Your task to perform on an android device: Add razer blackwidow to the cart on amazon, then select checkout. Image 0: 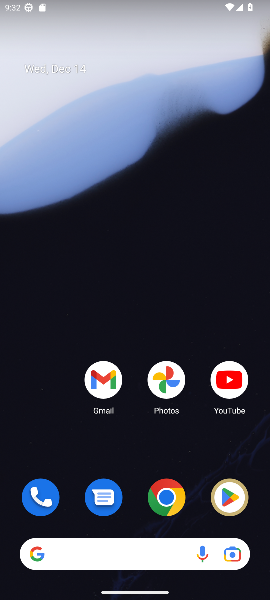
Step 0: click (169, 503)
Your task to perform on an android device: Add razer blackwidow to the cart on amazon, then select checkout. Image 1: 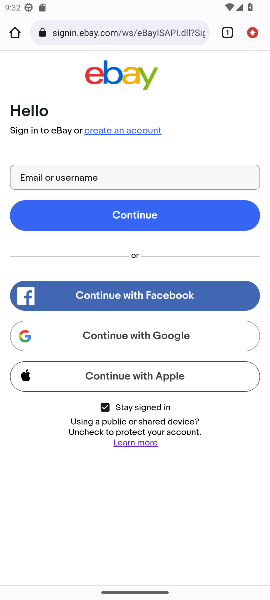
Step 1: click (68, 36)
Your task to perform on an android device: Add razer blackwidow to the cart on amazon, then select checkout. Image 2: 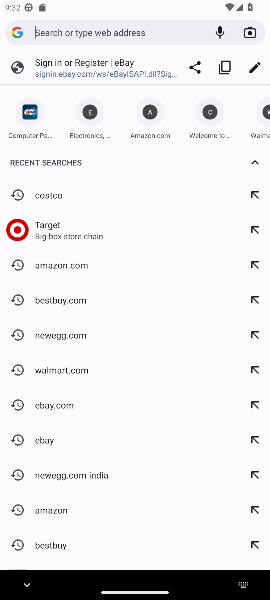
Step 2: type "amazon"
Your task to perform on an android device: Add razer blackwidow to the cart on amazon, then select checkout. Image 3: 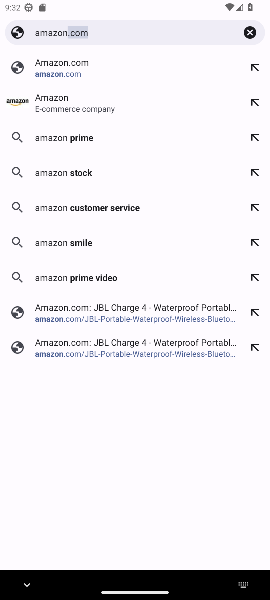
Step 3: click (97, 66)
Your task to perform on an android device: Add razer blackwidow to the cart on amazon, then select checkout. Image 4: 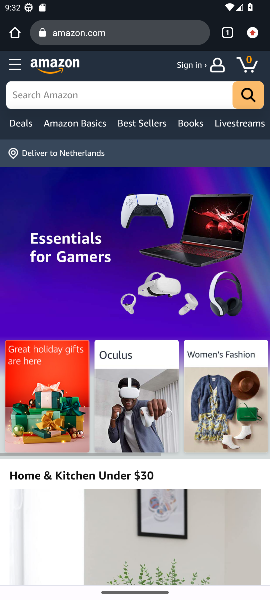
Step 4: click (85, 85)
Your task to perform on an android device: Add razer blackwidow to the cart on amazon, then select checkout. Image 5: 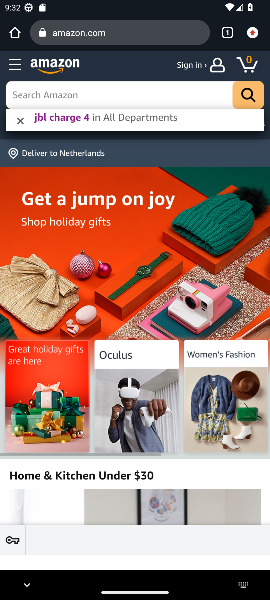
Step 5: press enter
Your task to perform on an android device: Add razer blackwidow to the cart on amazon, then select checkout. Image 6: 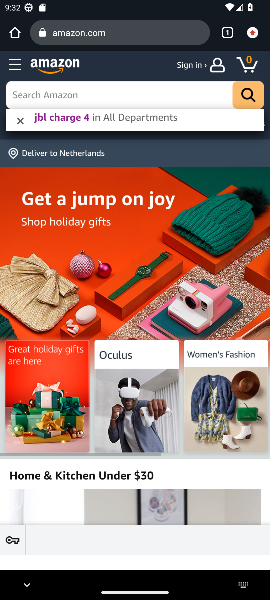
Step 6: type "razer blackwidow"
Your task to perform on an android device: Add razer blackwidow to the cart on amazon, then select checkout. Image 7: 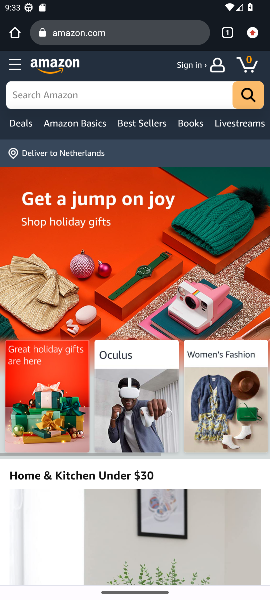
Step 7: click (75, 91)
Your task to perform on an android device: Add razer blackwidow to the cart on amazon, then select checkout. Image 8: 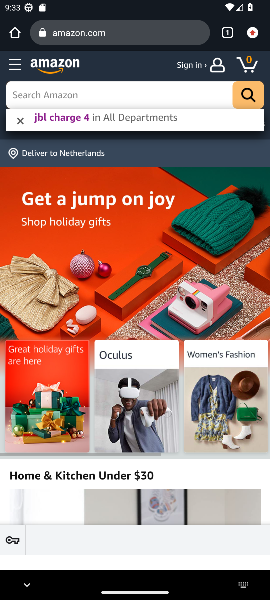
Step 8: type "razer blackwidow"
Your task to perform on an android device: Add razer blackwidow to the cart on amazon, then select checkout. Image 9: 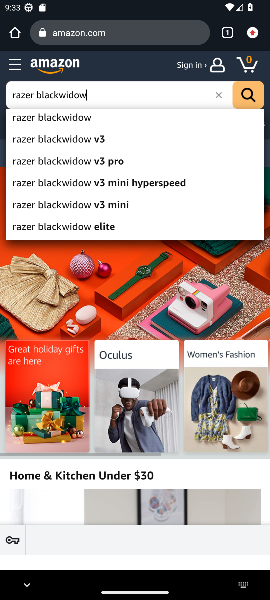
Step 9: press enter
Your task to perform on an android device: Add razer blackwidow to the cart on amazon, then select checkout. Image 10: 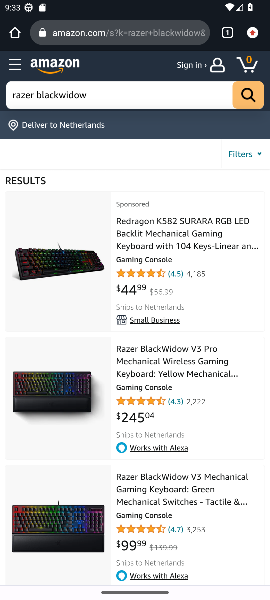
Step 10: click (172, 366)
Your task to perform on an android device: Add razer blackwidow to the cart on amazon, then select checkout. Image 11: 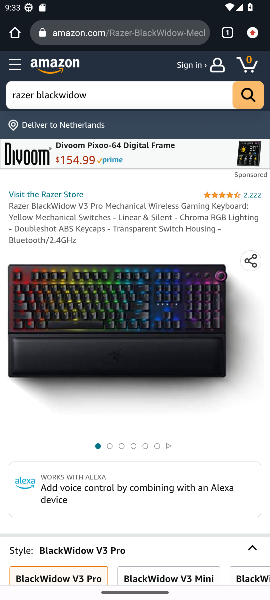
Step 11: drag from (185, 421) to (228, 19)
Your task to perform on an android device: Add razer blackwidow to the cart on amazon, then select checkout. Image 12: 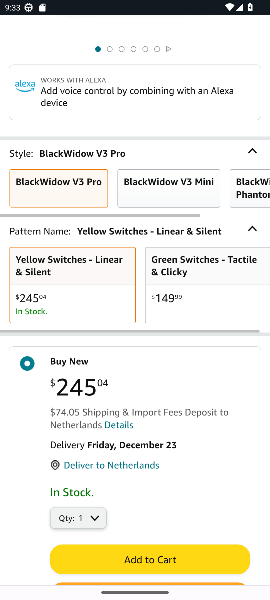
Step 12: drag from (193, 526) to (168, 333)
Your task to perform on an android device: Add razer blackwidow to the cart on amazon, then select checkout. Image 13: 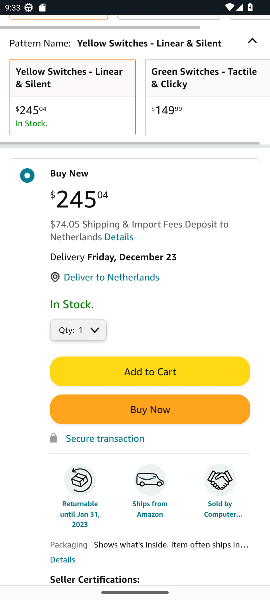
Step 13: click (141, 368)
Your task to perform on an android device: Add razer blackwidow to the cart on amazon, then select checkout. Image 14: 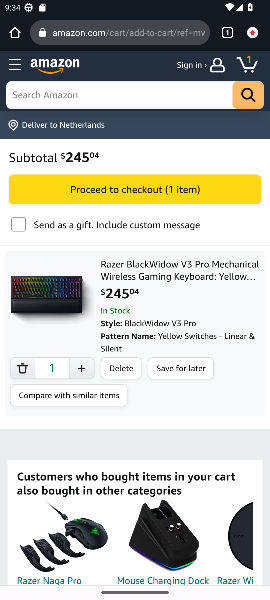
Step 14: click (109, 187)
Your task to perform on an android device: Add razer blackwidow to the cart on amazon, then select checkout. Image 15: 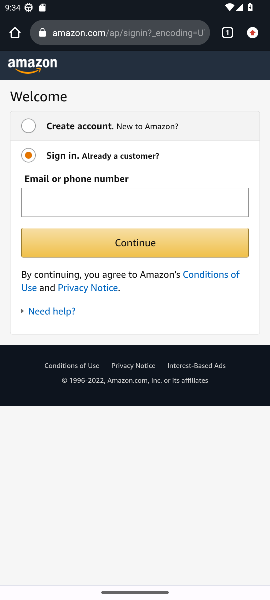
Step 15: task complete